Your task to perform on an android device: Open the Play Movies app and select the watchlist tab. Image 0: 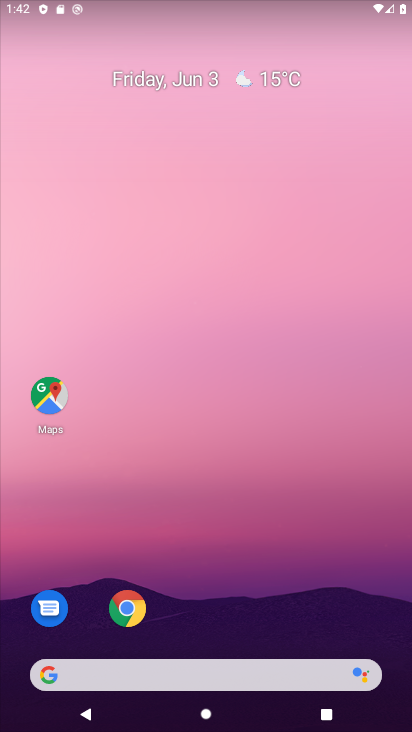
Step 0: drag from (209, 663) to (225, 353)
Your task to perform on an android device: Open the Play Movies app and select the watchlist tab. Image 1: 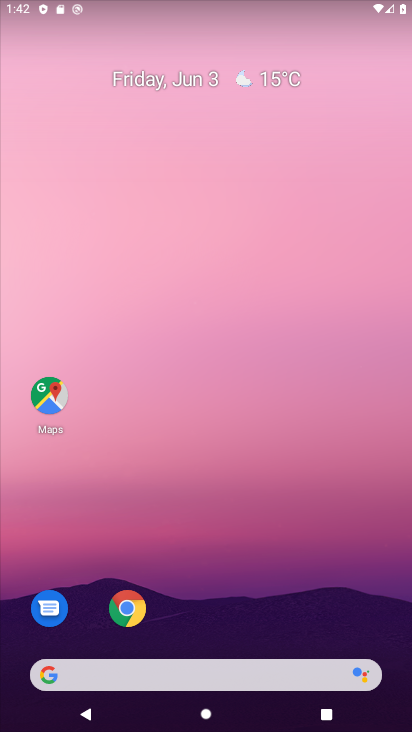
Step 1: drag from (203, 661) to (171, 24)
Your task to perform on an android device: Open the Play Movies app and select the watchlist tab. Image 2: 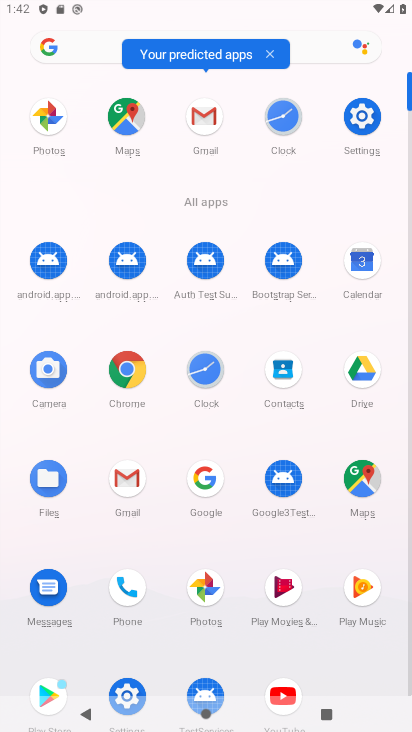
Step 2: click (297, 601)
Your task to perform on an android device: Open the Play Movies app and select the watchlist tab. Image 3: 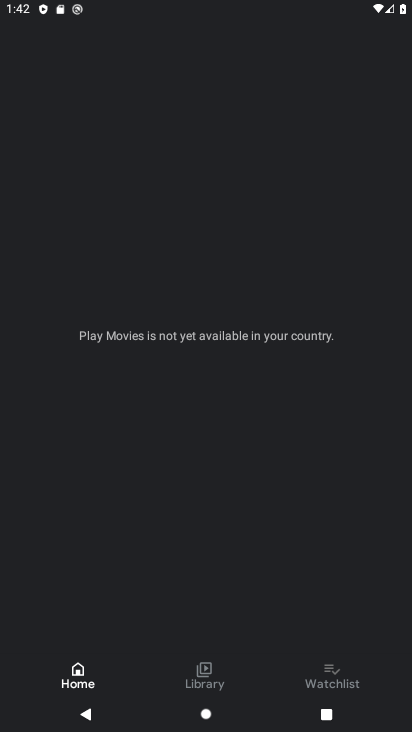
Step 3: click (329, 676)
Your task to perform on an android device: Open the Play Movies app and select the watchlist tab. Image 4: 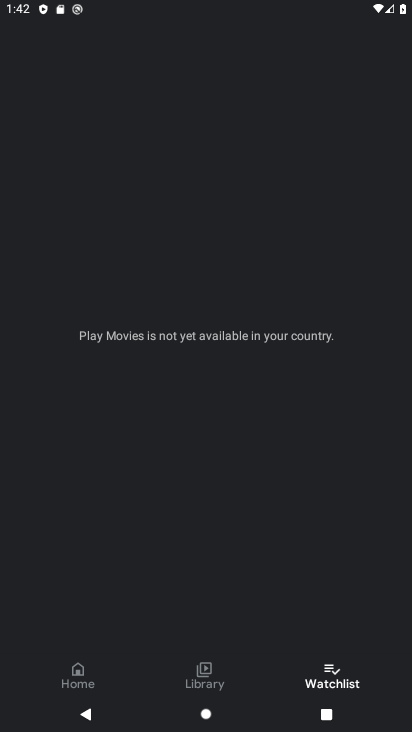
Step 4: task complete